Your task to perform on an android device: Open sound settings Image 0: 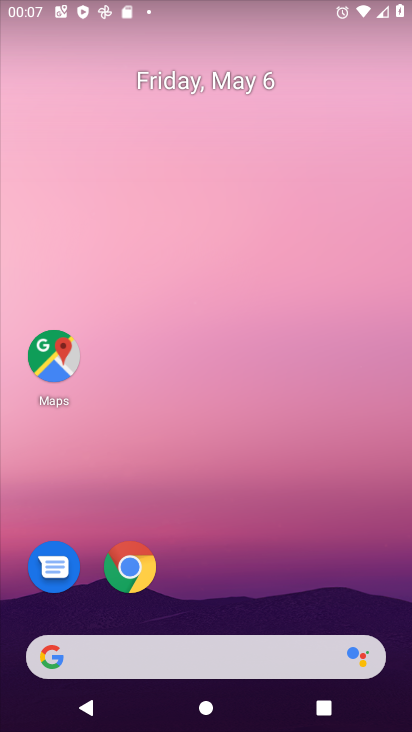
Step 0: drag from (227, 596) to (232, 172)
Your task to perform on an android device: Open sound settings Image 1: 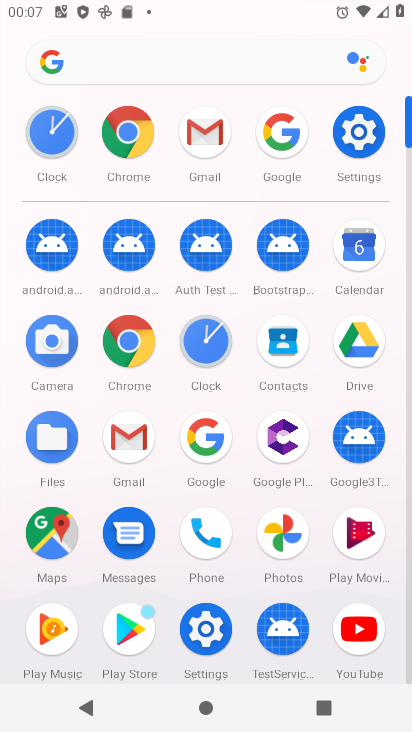
Step 1: click (345, 148)
Your task to perform on an android device: Open sound settings Image 2: 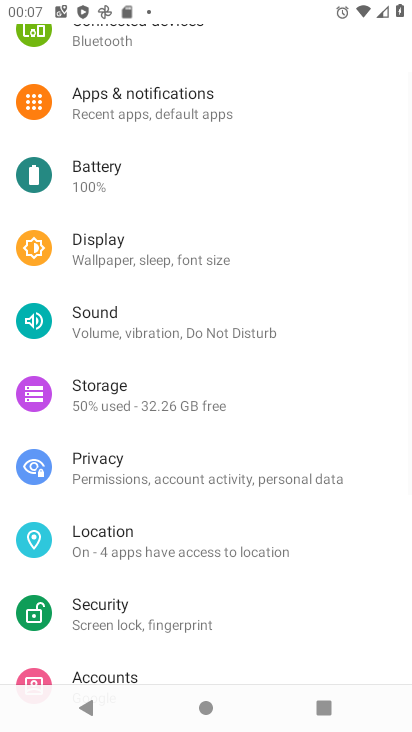
Step 2: click (134, 313)
Your task to perform on an android device: Open sound settings Image 3: 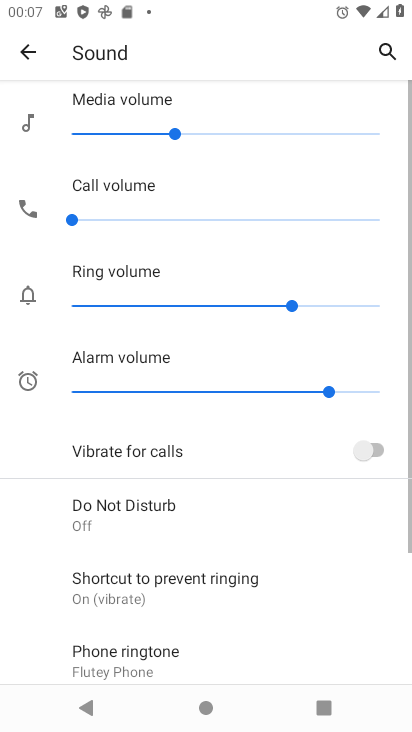
Step 3: click (225, 199)
Your task to perform on an android device: Open sound settings Image 4: 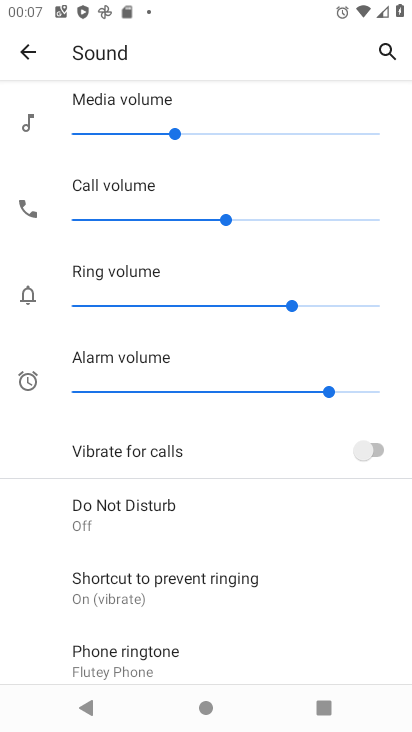
Step 4: task complete